Your task to perform on an android device: Clear the cart on ebay. Add "jbl charge 4" to the cart on ebay, then select checkout. Image 0: 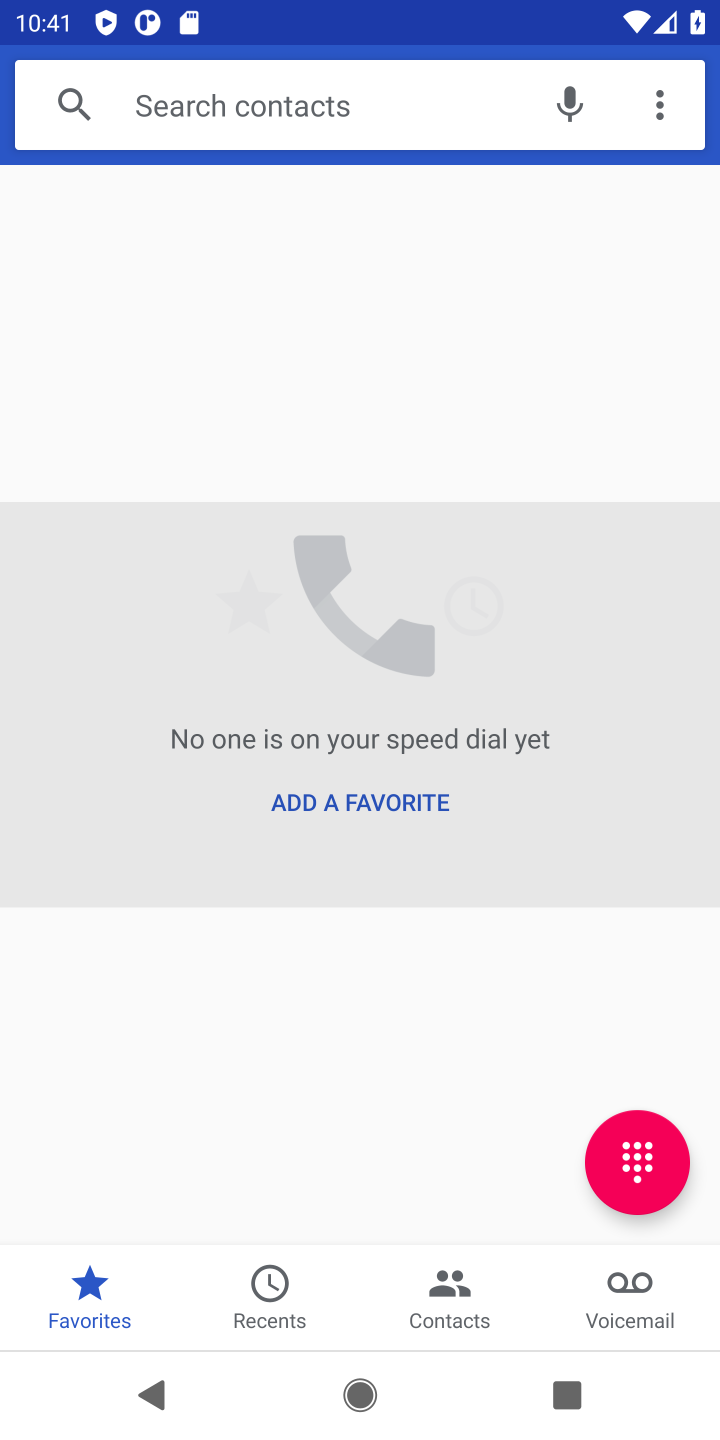
Step 0: press home button
Your task to perform on an android device: Clear the cart on ebay. Add "jbl charge 4" to the cart on ebay, then select checkout. Image 1: 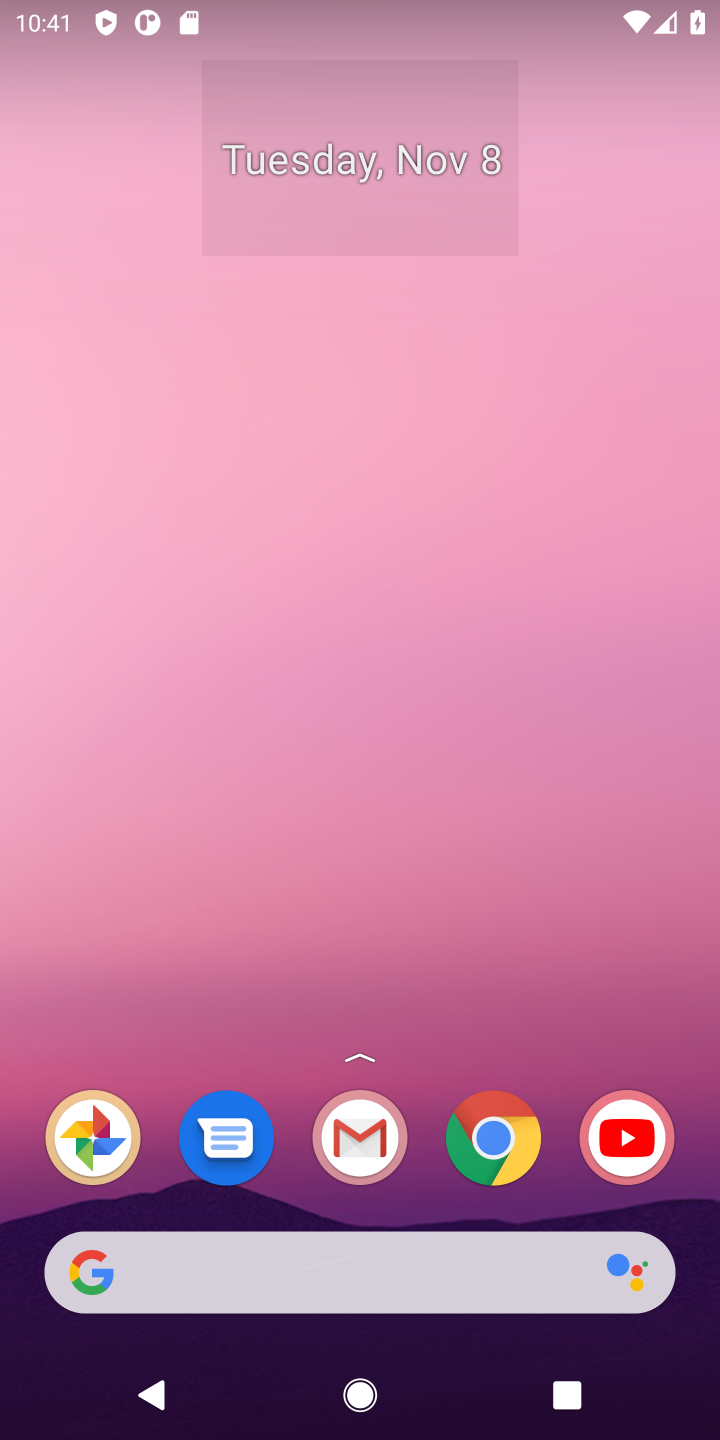
Step 1: click (485, 1137)
Your task to perform on an android device: Clear the cart on ebay. Add "jbl charge 4" to the cart on ebay, then select checkout. Image 2: 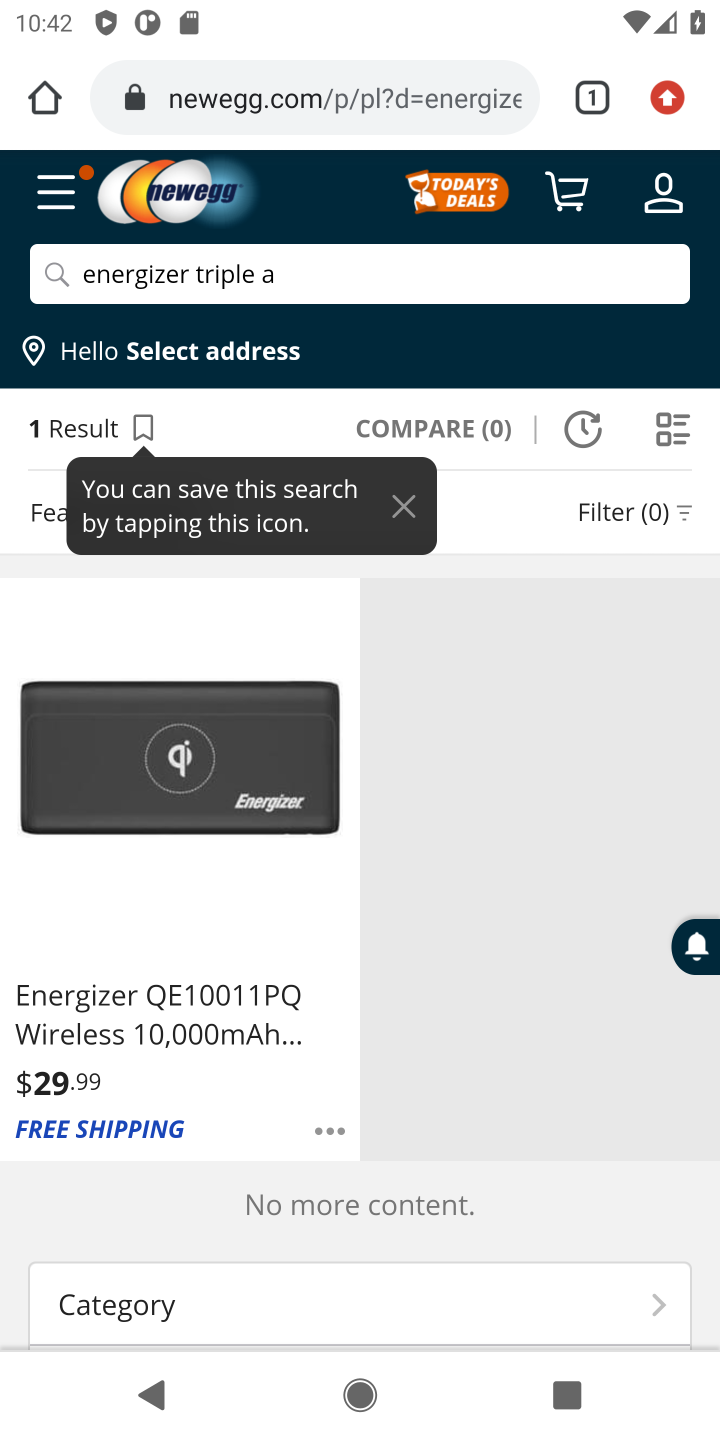
Step 2: click (447, 91)
Your task to perform on an android device: Clear the cart on ebay. Add "jbl charge 4" to the cart on ebay, then select checkout. Image 3: 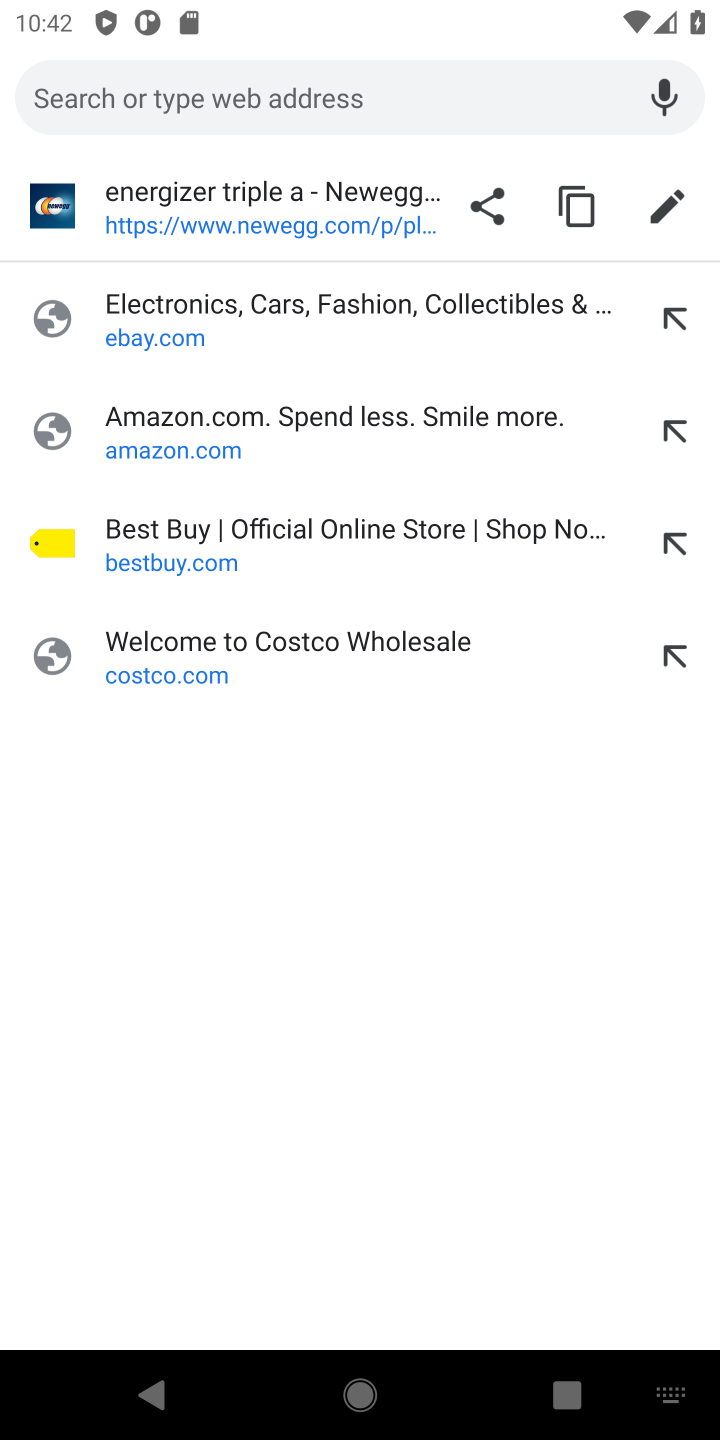
Step 3: click (155, 335)
Your task to perform on an android device: Clear the cart on ebay. Add "jbl charge 4" to the cart on ebay, then select checkout. Image 4: 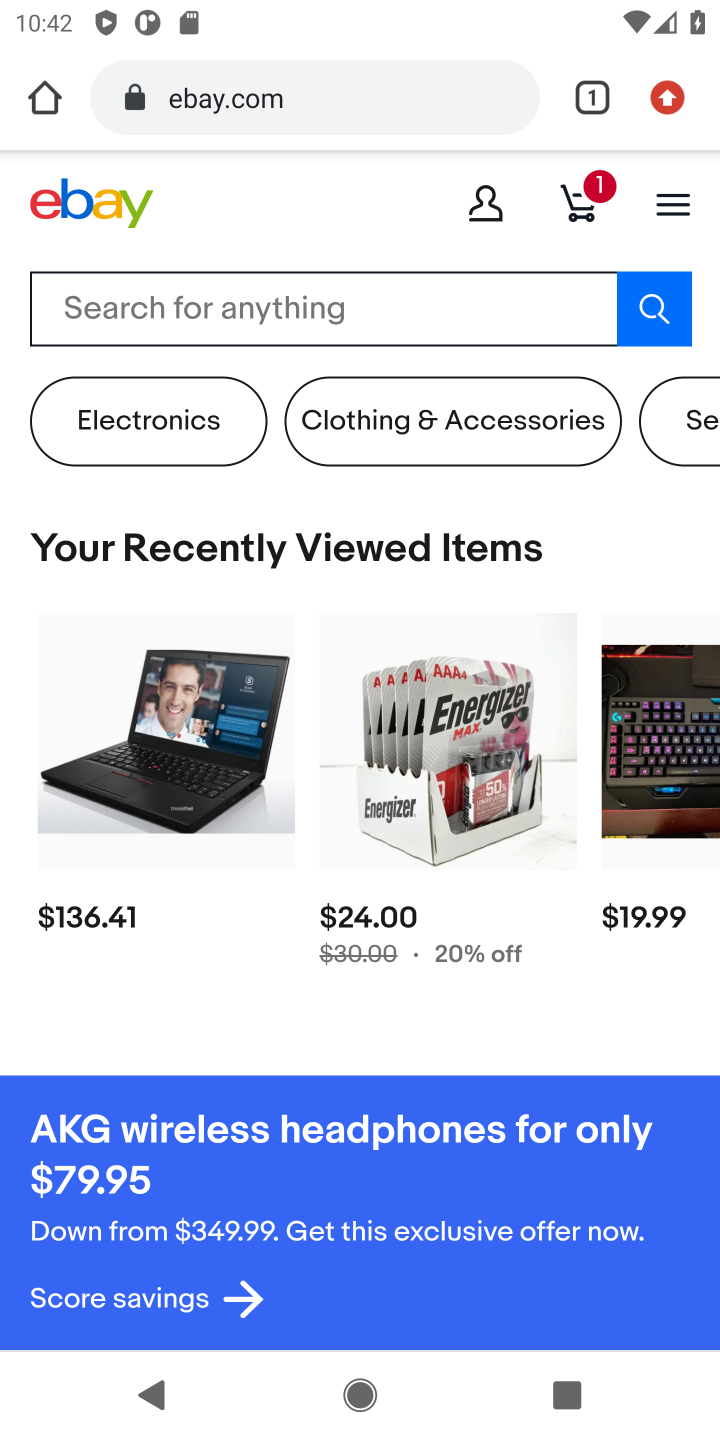
Step 4: click (209, 301)
Your task to perform on an android device: Clear the cart on ebay. Add "jbl charge 4" to the cart on ebay, then select checkout. Image 5: 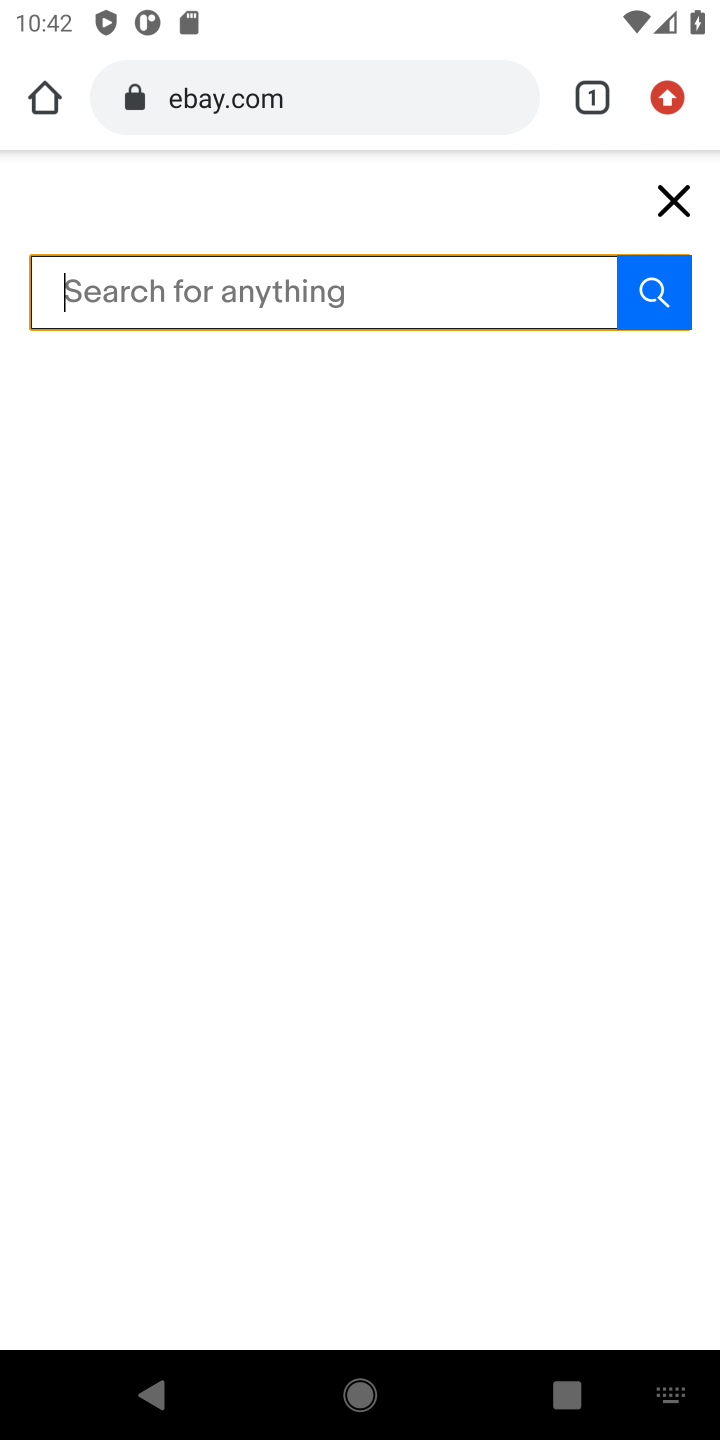
Step 5: type "jbl charge 4"
Your task to perform on an android device: Clear the cart on ebay. Add "jbl charge 4" to the cart on ebay, then select checkout. Image 6: 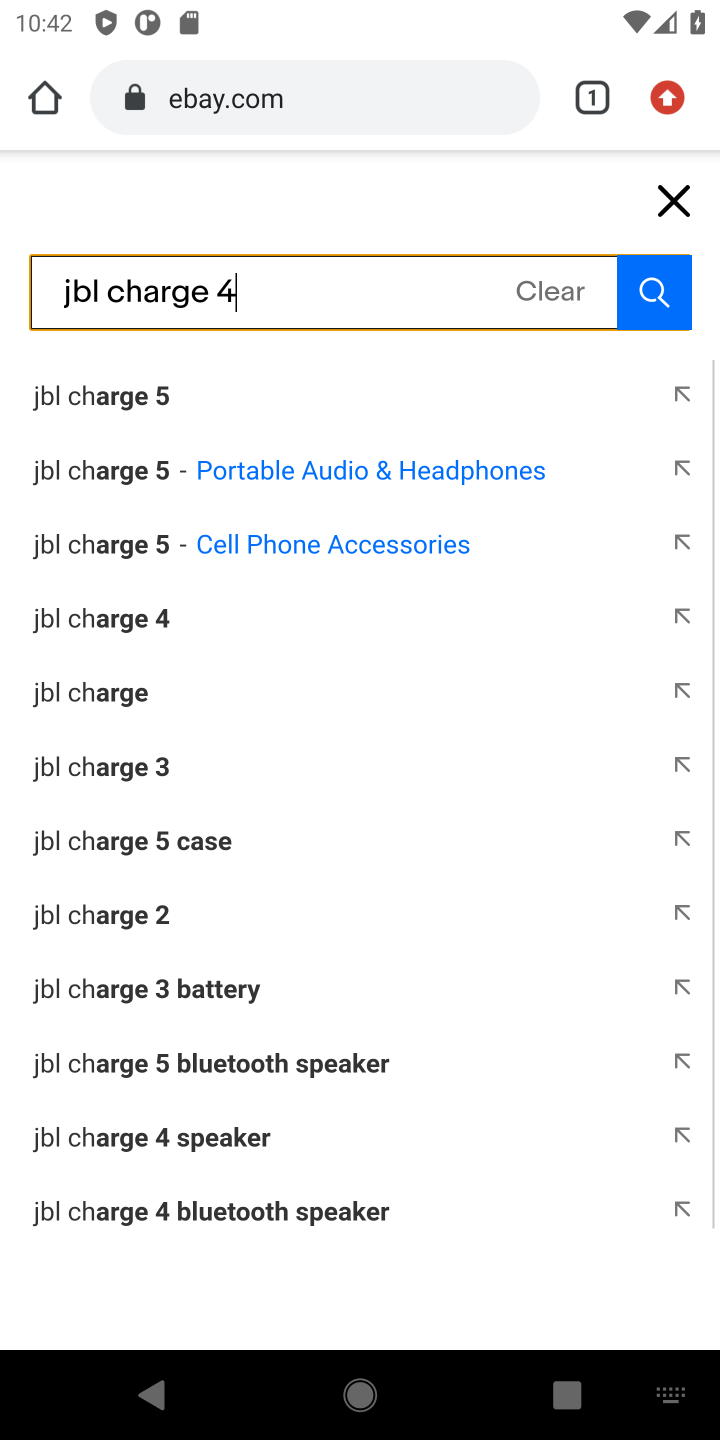
Step 6: press enter
Your task to perform on an android device: Clear the cart on ebay. Add "jbl charge 4" to the cart on ebay, then select checkout. Image 7: 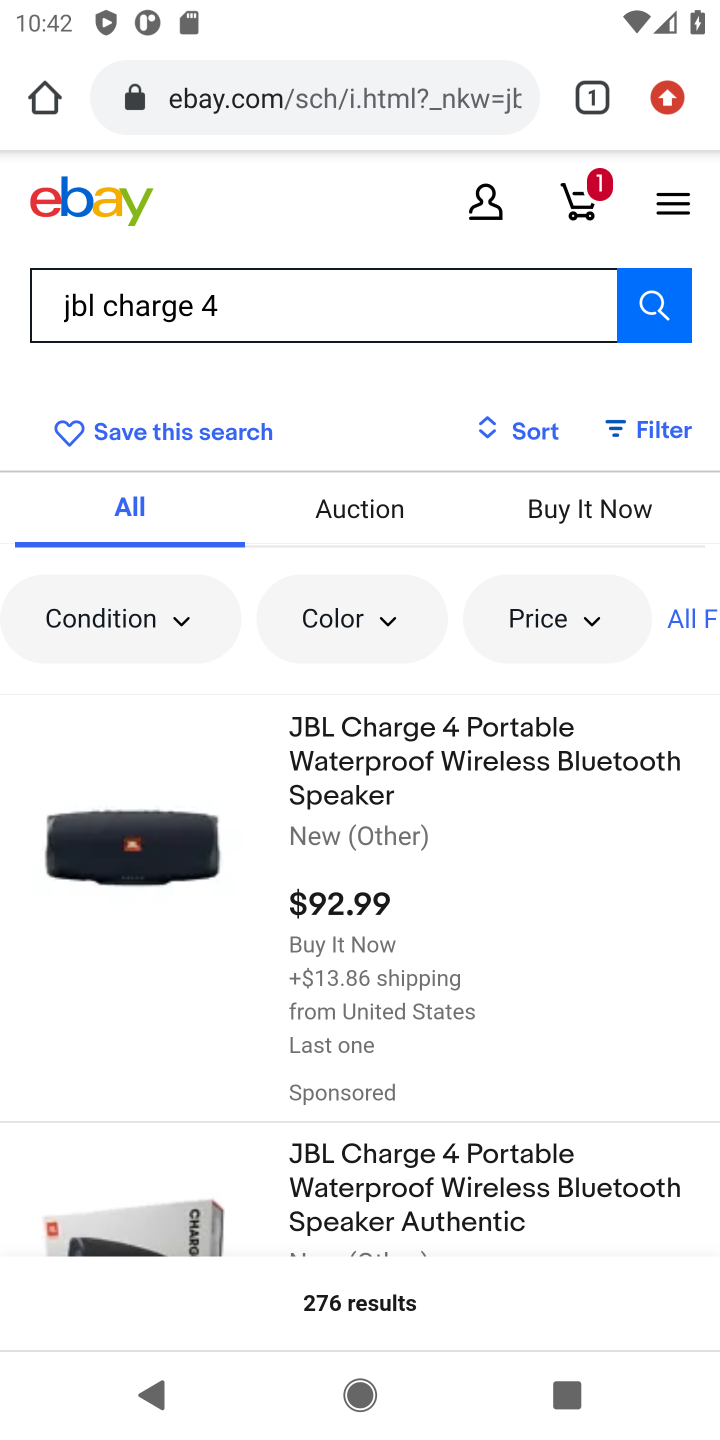
Step 7: click (480, 885)
Your task to perform on an android device: Clear the cart on ebay. Add "jbl charge 4" to the cart on ebay, then select checkout. Image 8: 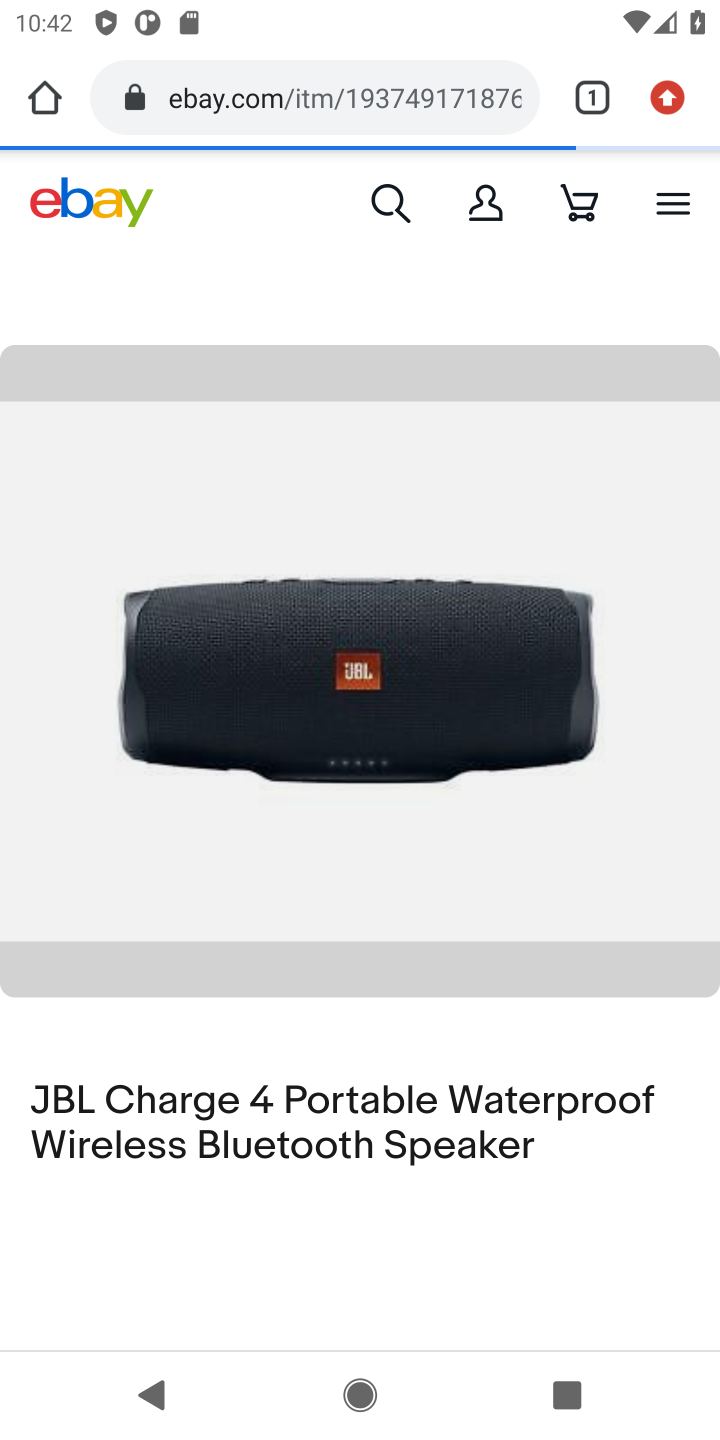
Step 8: drag from (360, 1232) to (592, 289)
Your task to perform on an android device: Clear the cart on ebay. Add "jbl charge 4" to the cart on ebay, then select checkout. Image 9: 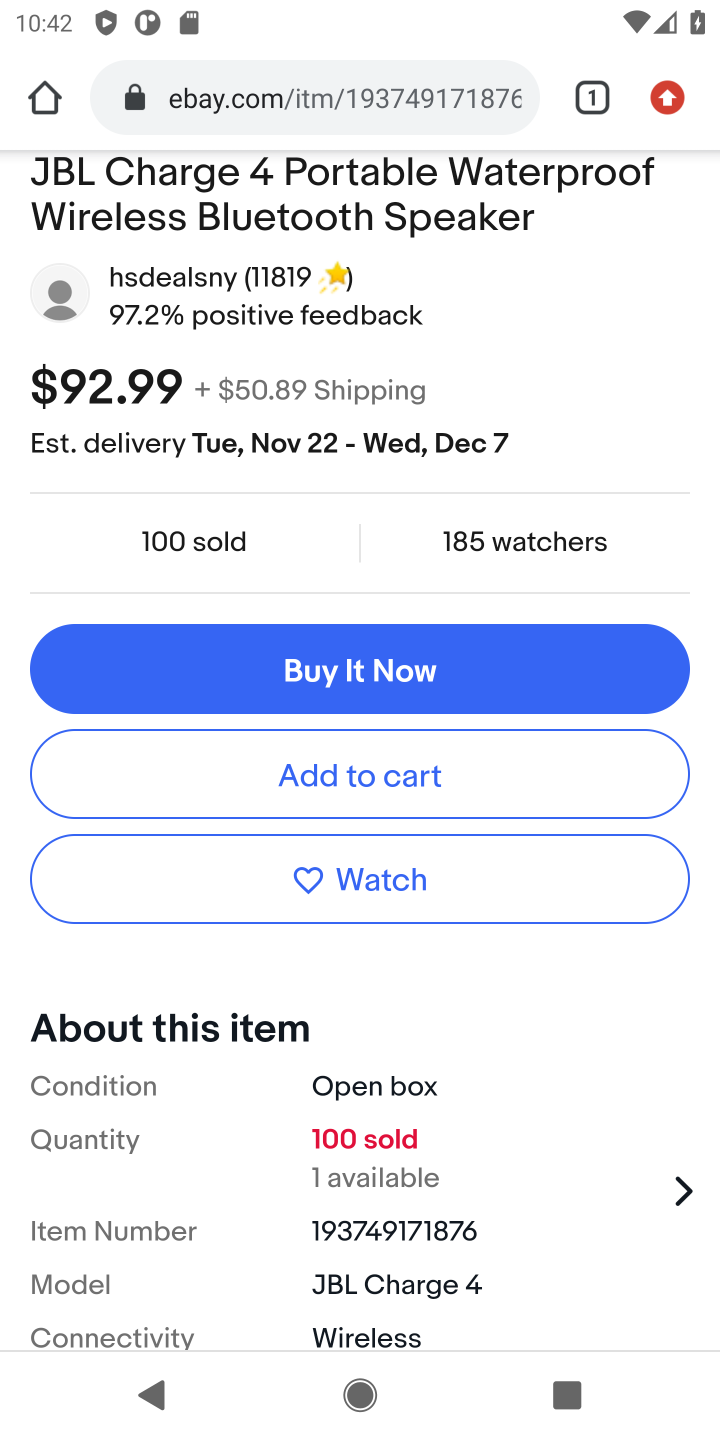
Step 9: click (353, 778)
Your task to perform on an android device: Clear the cart on ebay. Add "jbl charge 4" to the cart on ebay, then select checkout. Image 10: 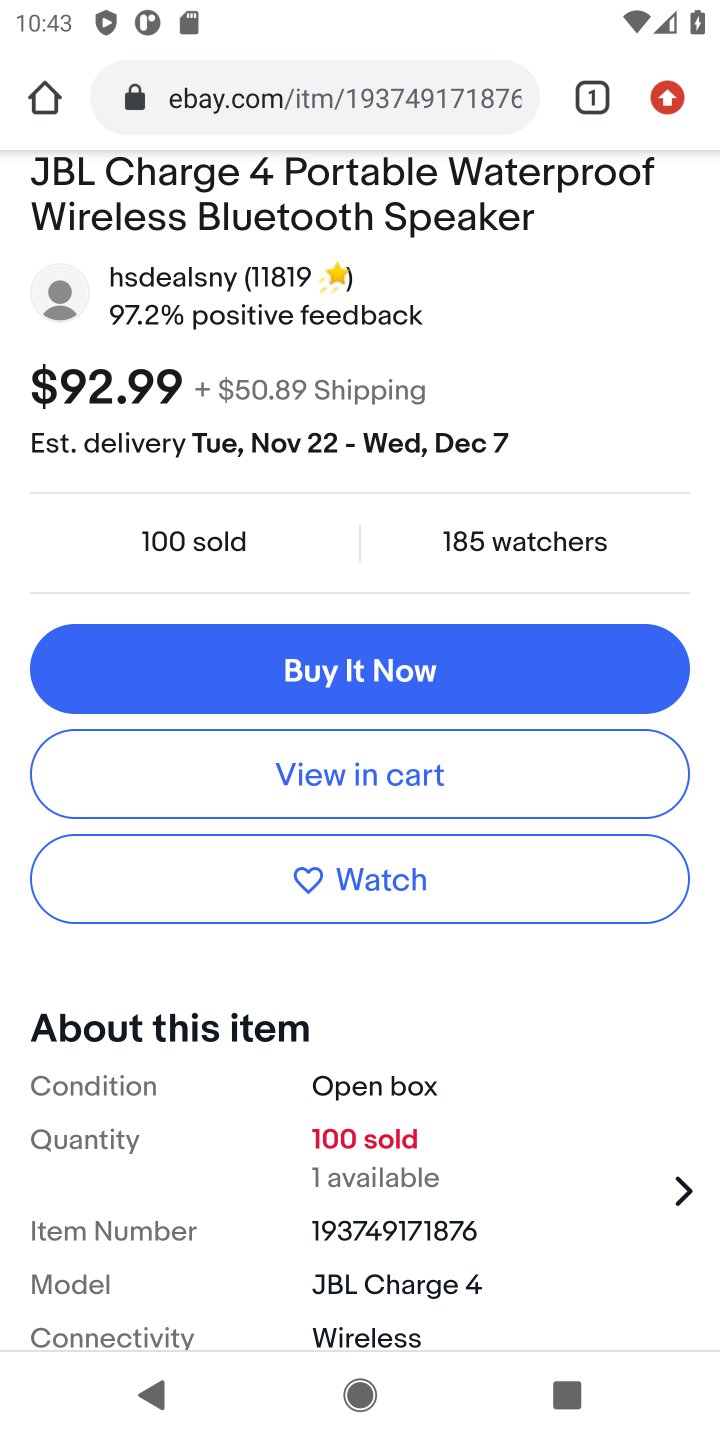
Step 10: click (353, 771)
Your task to perform on an android device: Clear the cart on ebay. Add "jbl charge 4" to the cart on ebay, then select checkout. Image 11: 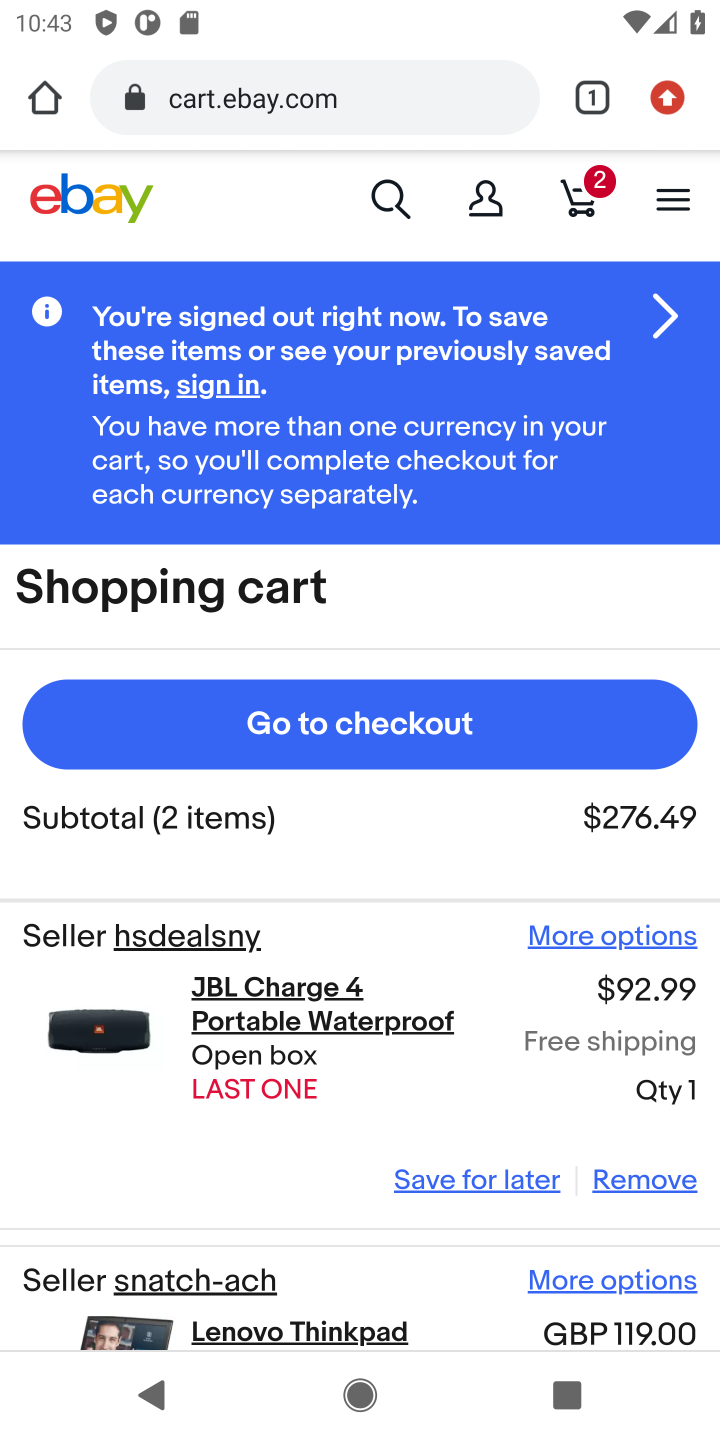
Step 11: drag from (423, 1154) to (579, 340)
Your task to perform on an android device: Clear the cart on ebay. Add "jbl charge 4" to the cart on ebay, then select checkout. Image 12: 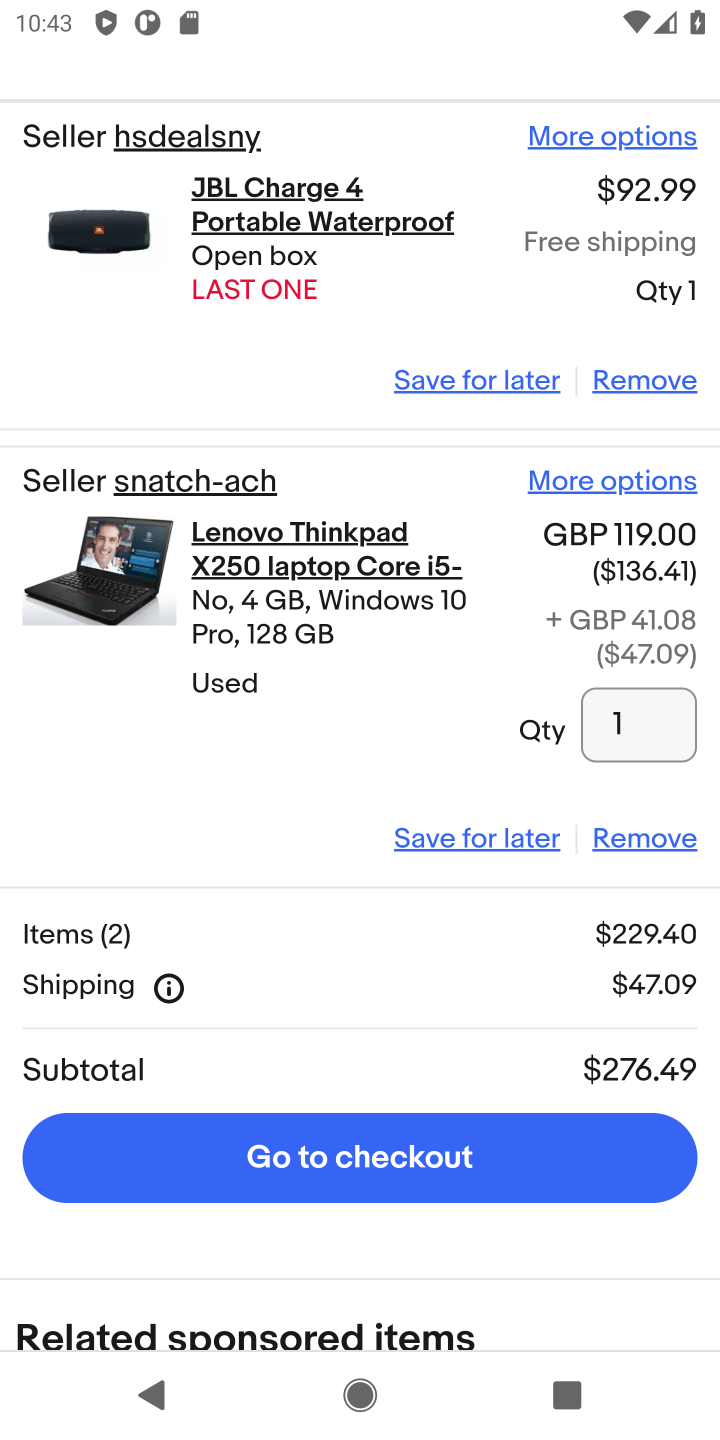
Step 12: click (674, 835)
Your task to perform on an android device: Clear the cart on ebay. Add "jbl charge 4" to the cart on ebay, then select checkout. Image 13: 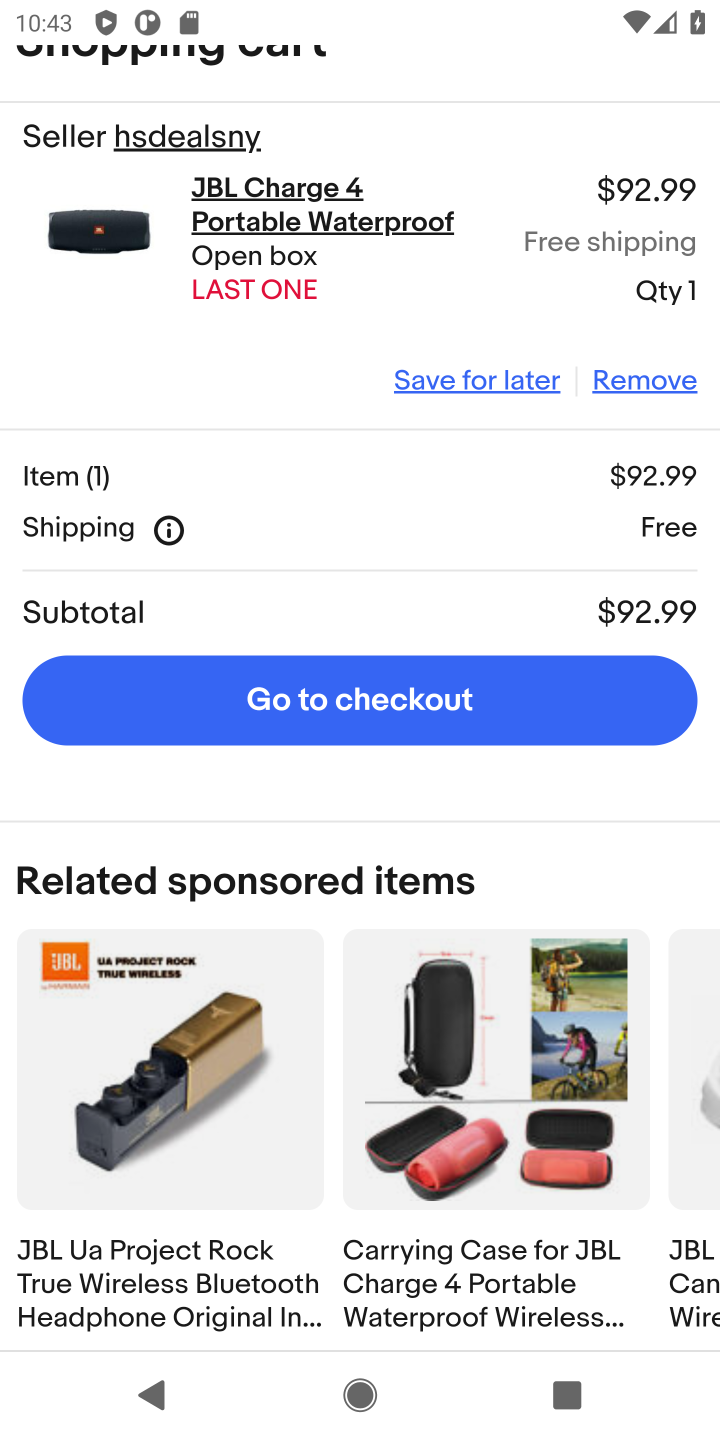
Step 13: click (358, 698)
Your task to perform on an android device: Clear the cart on ebay. Add "jbl charge 4" to the cart on ebay, then select checkout. Image 14: 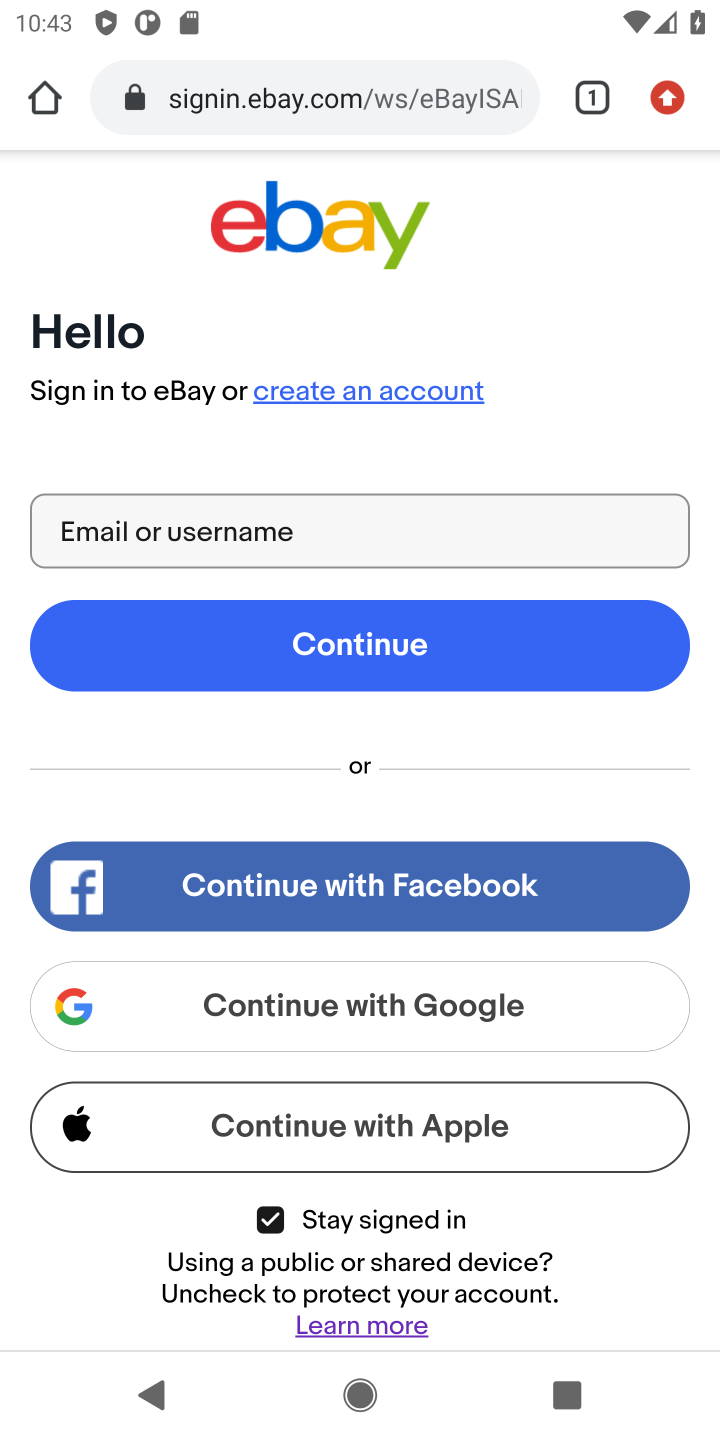
Step 14: task complete